Your task to perform on an android device: Go to settings Image 0: 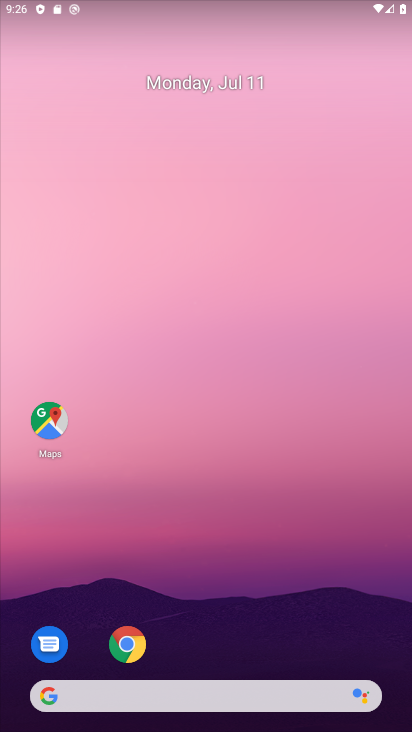
Step 0: press home button
Your task to perform on an android device: Go to settings Image 1: 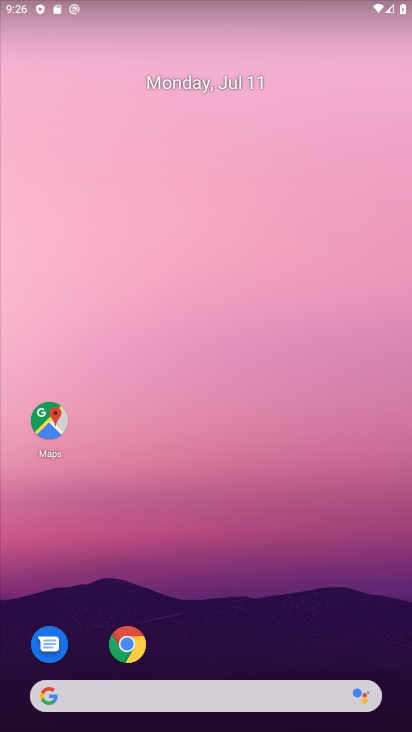
Step 1: drag from (215, 657) to (261, 14)
Your task to perform on an android device: Go to settings Image 2: 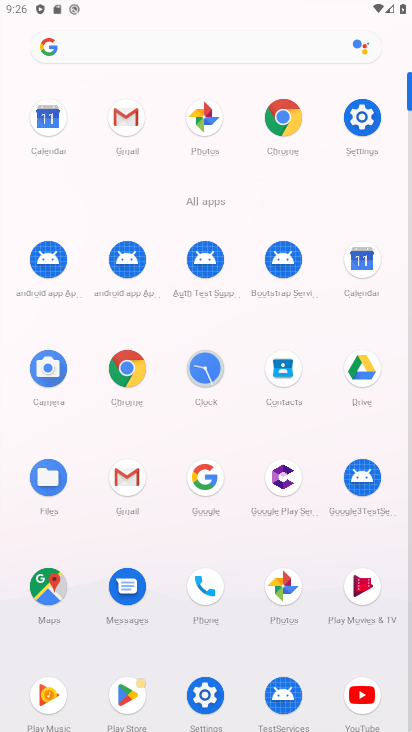
Step 2: click (359, 118)
Your task to perform on an android device: Go to settings Image 3: 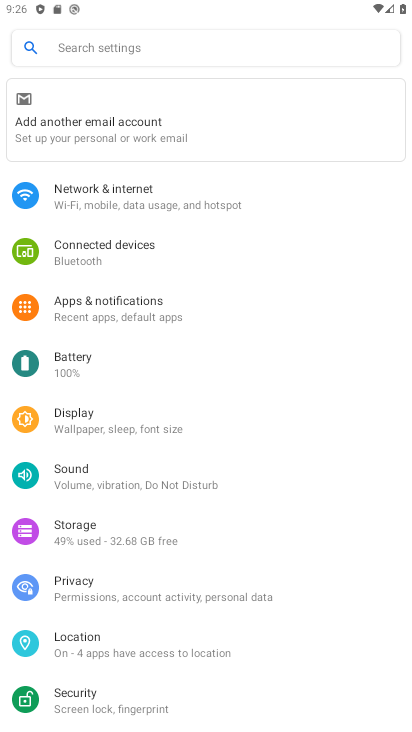
Step 3: task complete